Your task to perform on an android device: Go to internet settings Image 0: 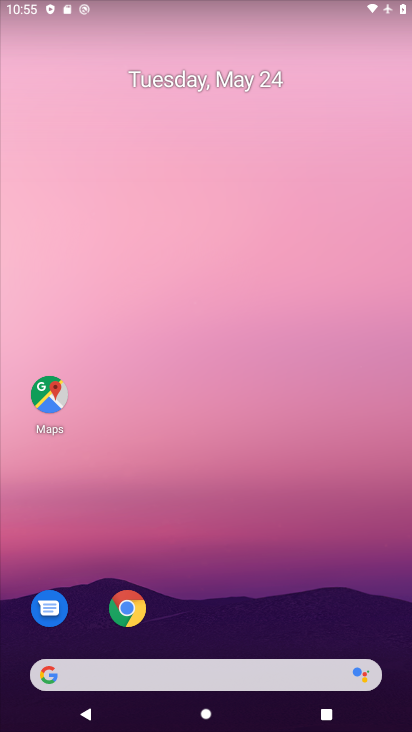
Step 0: drag from (395, 626) to (295, 38)
Your task to perform on an android device: Go to internet settings Image 1: 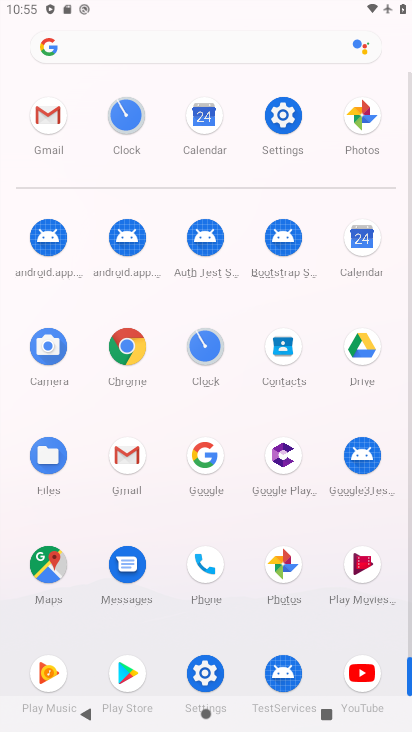
Step 1: click (205, 676)
Your task to perform on an android device: Go to internet settings Image 2: 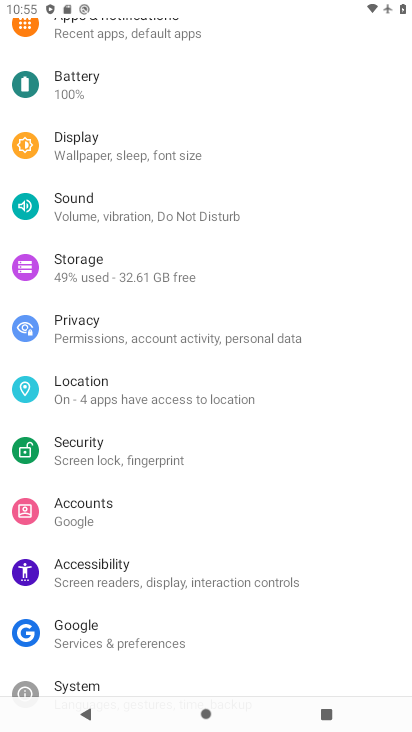
Step 2: drag from (318, 139) to (317, 477)
Your task to perform on an android device: Go to internet settings Image 3: 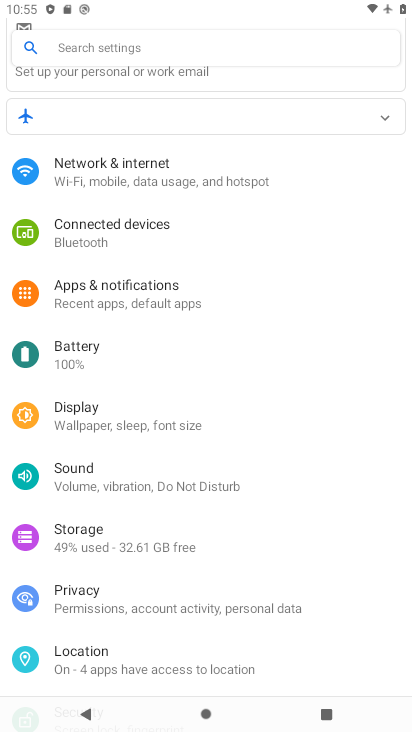
Step 3: click (89, 166)
Your task to perform on an android device: Go to internet settings Image 4: 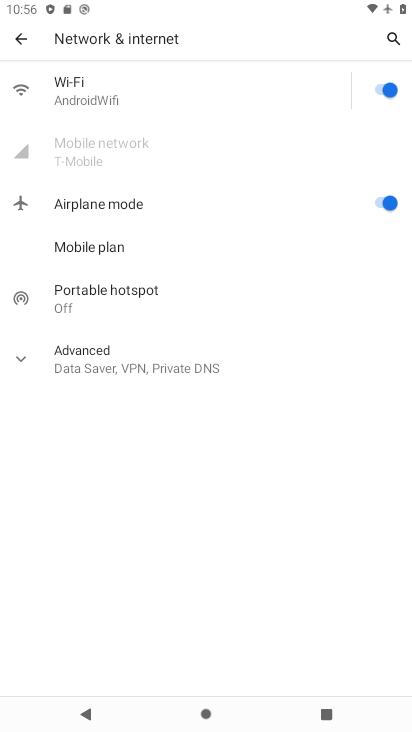
Step 4: click (89, 91)
Your task to perform on an android device: Go to internet settings Image 5: 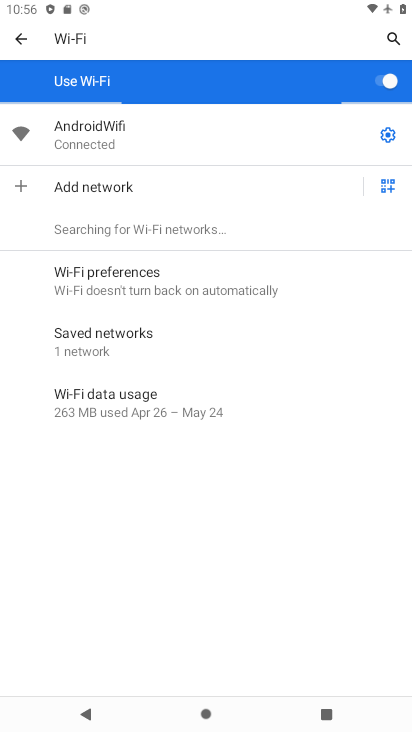
Step 5: task complete